Your task to perform on an android device: Open the map Image 0: 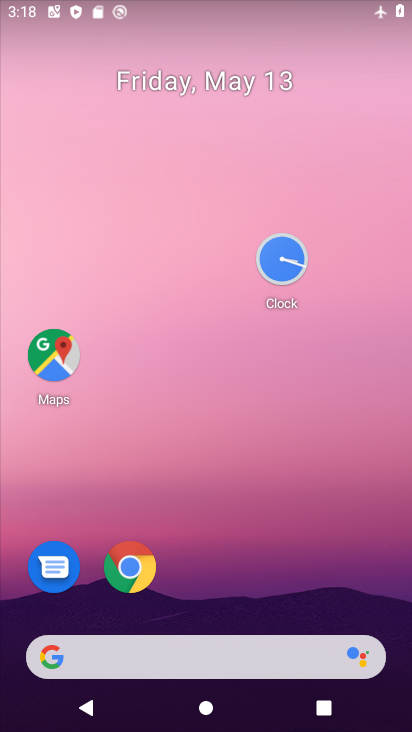
Step 0: click (69, 350)
Your task to perform on an android device: Open the map Image 1: 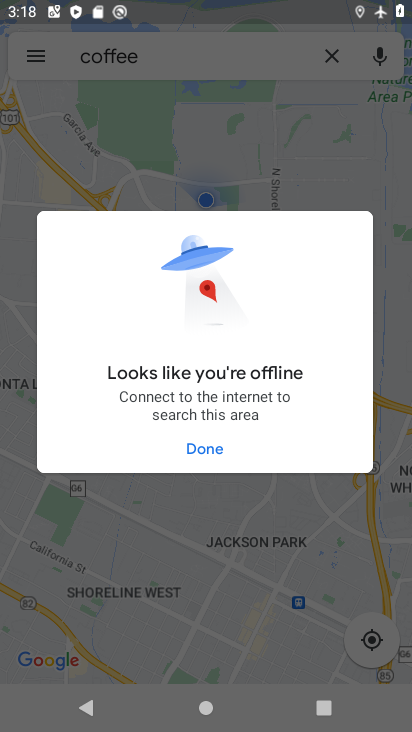
Step 1: task complete